Your task to perform on an android device: Go to accessibility settings Image 0: 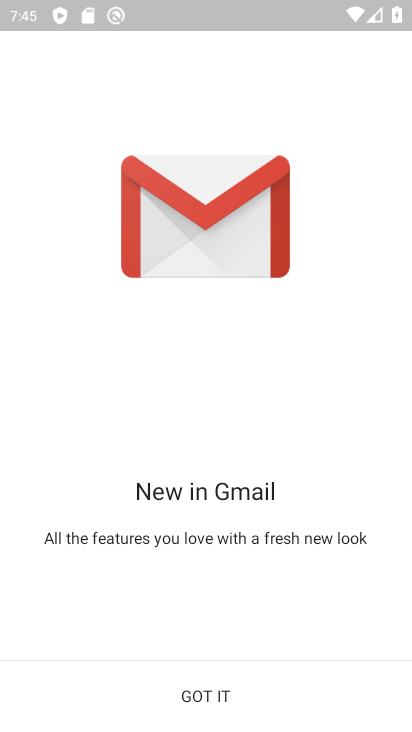
Step 0: press home button
Your task to perform on an android device: Go to accessibility settings Image 1: 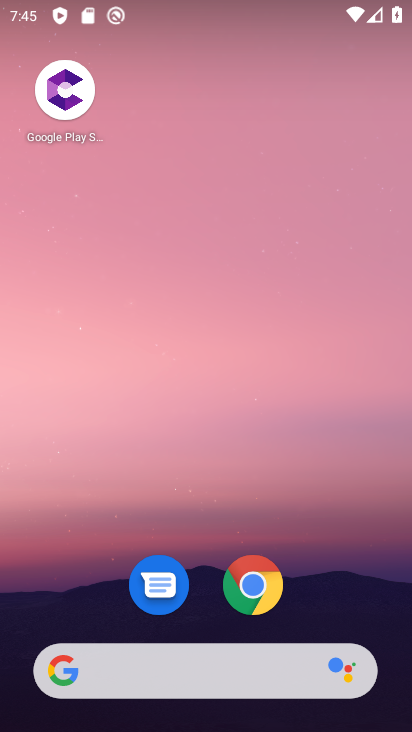
Step 1: drag from (341, 555) to (310, 1)
Your task to perform on an android device: Go to accessibility settings Image 2: 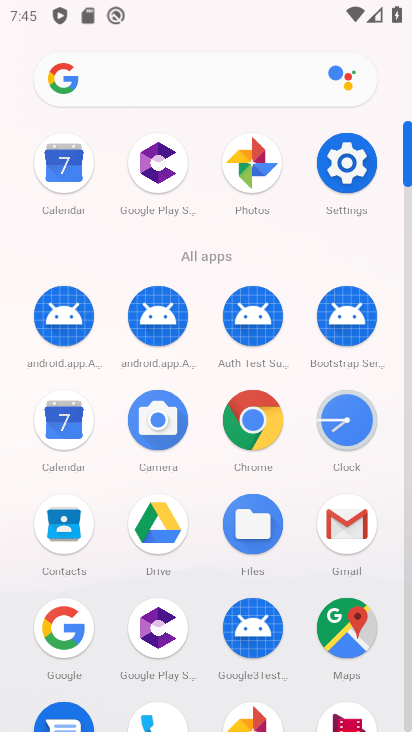
Step 2: click (339, 169)
Your task to perform on an android device: Go to accessibility settings Image 3: 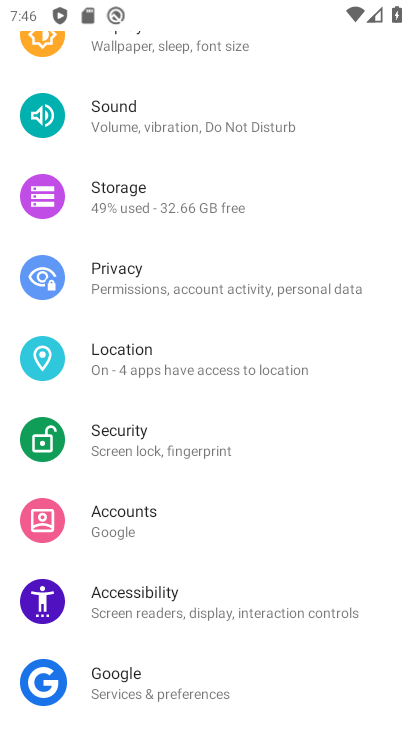
Step 3: click (197, 606)
Your task to perform on an android device: Go to accessibility settings Image 4: 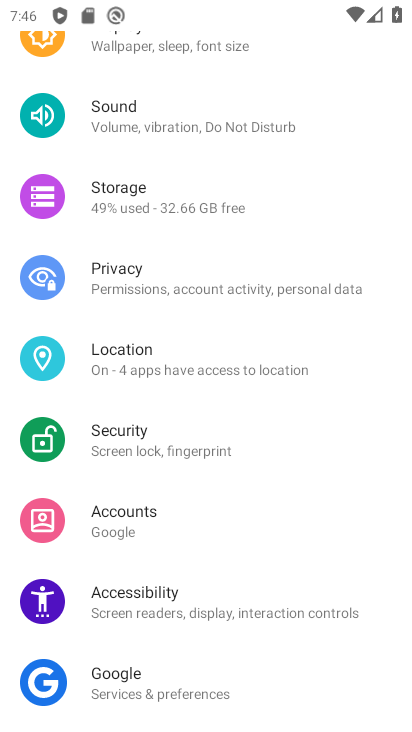
Step 4: click (191, 602)
Your task to perform on an android device: Go to accessibility settings Image 5: 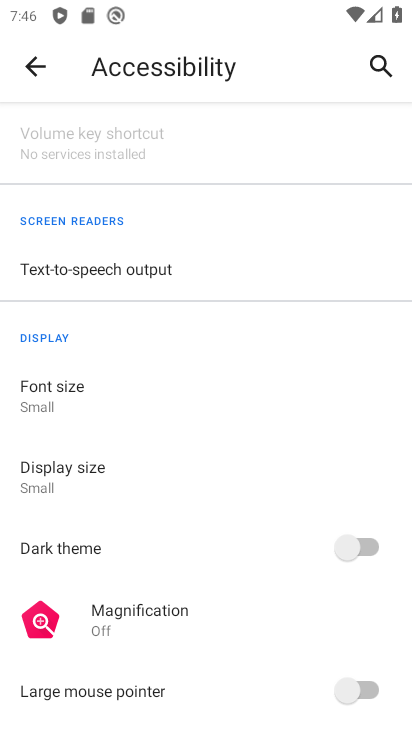
Step 5: task complete